Your task to perform on an android device: Open Google Image 0: 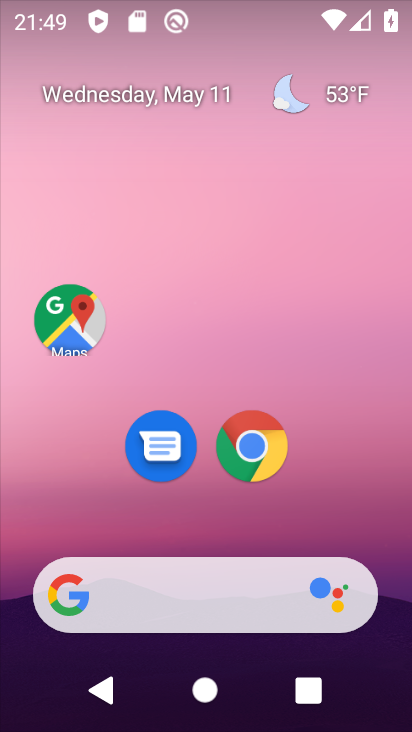
Step 0: drag from (384, 514) to (285, 72)
Your task to perform on an android device: Open Google Image 1: 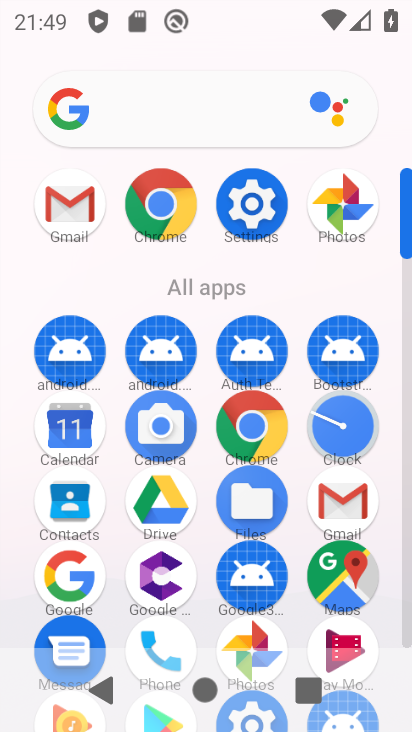
Step 1: click (68, 572)
Your task to perform on an android device: Open Google Image 2: 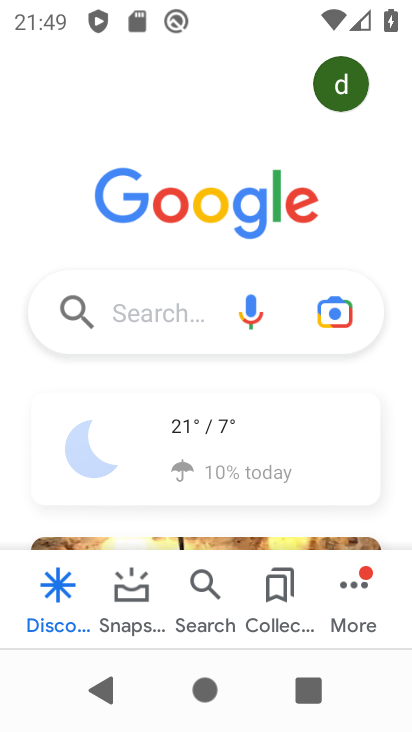
Step 2: task complete